Your task to perform on an android device: Show me recent news Image 0: 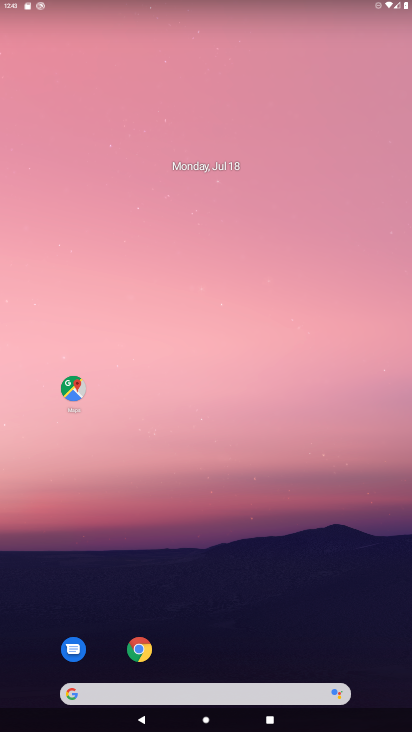
Step 0: drag from (198, 646) to (238, 64)
Your task to perform on an android device: Show me recent news Image 1: 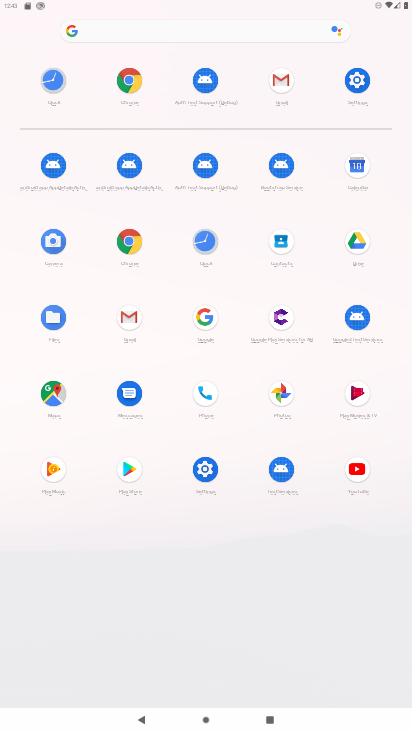
Step 1: click (200, 317)
Your task to perform on an android device: Show me recent news Image 2: 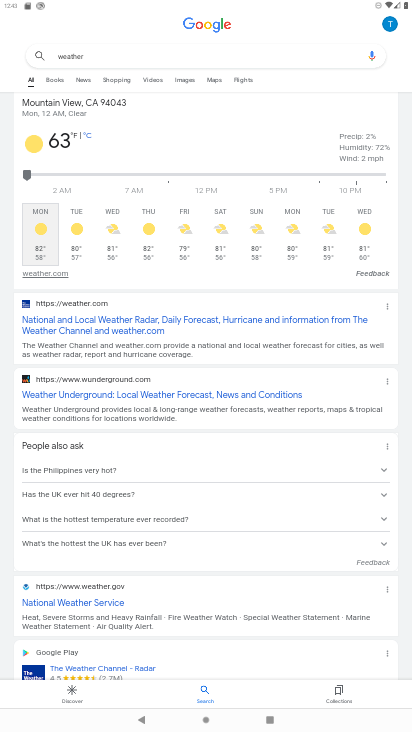
Step 2: click (198, 30)
Your task to perform on an android device: Show me recent news Image 3: 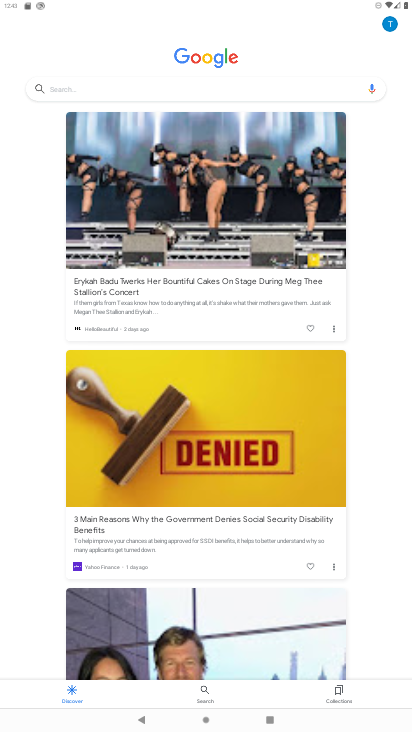
Step 3: task complete